Your task to perform on an android device: Go to CNN.com Image 0: 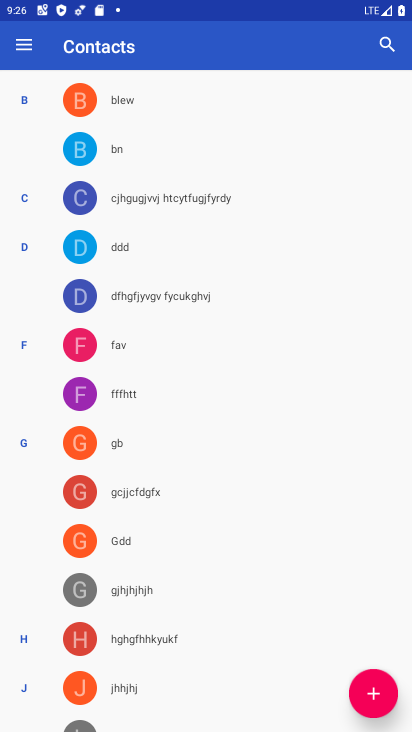
Step 0: press home button
Your task to perform on an android device: Go to CNN.com Image 1: 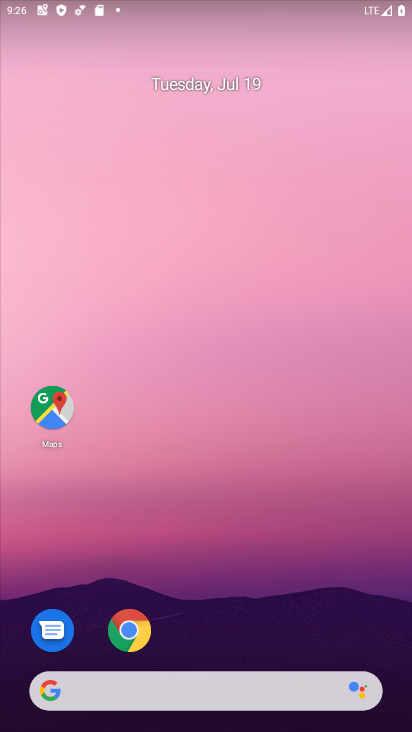
Step 1: drag from (238, 634) to (232, 218)
Your task to perform on an android device: Go to CNN.com Image 2: 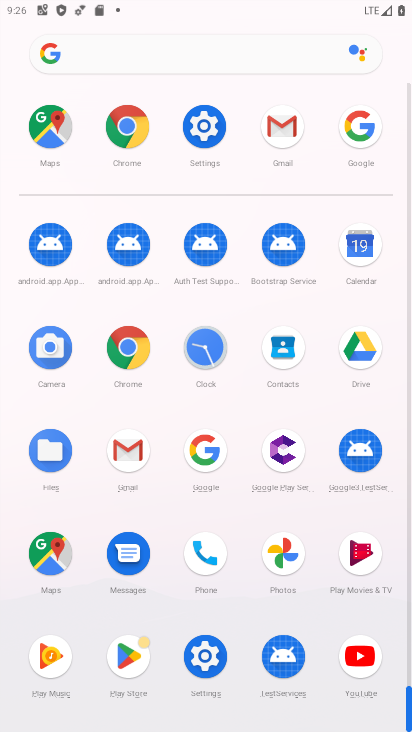
Step 2: click (132, 137)
Your task to perform on an android device: Go to CNN.com Image 3: 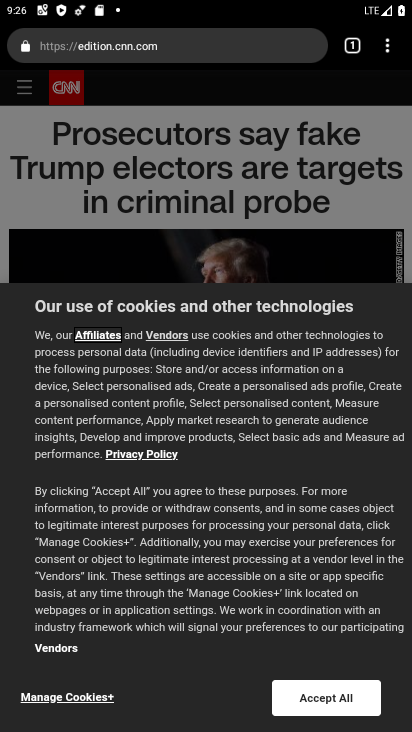
Step 3: task complete